Your task to perform on an android device: snooze an email in the gmail app Image 0: 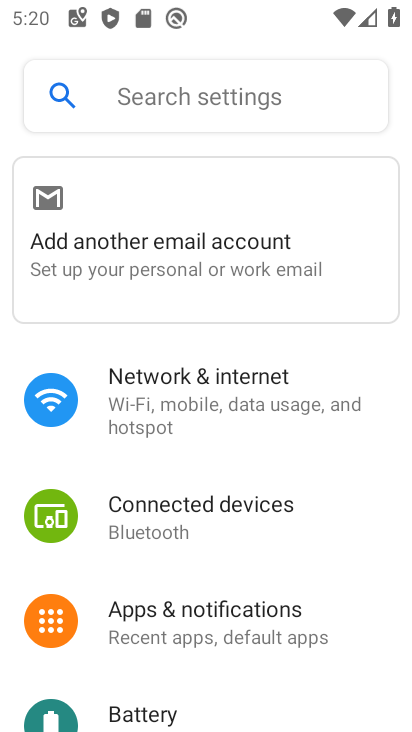
Step 0: press home button
Your task to perform on an android device: snooze an email in the gmail app Image 1: 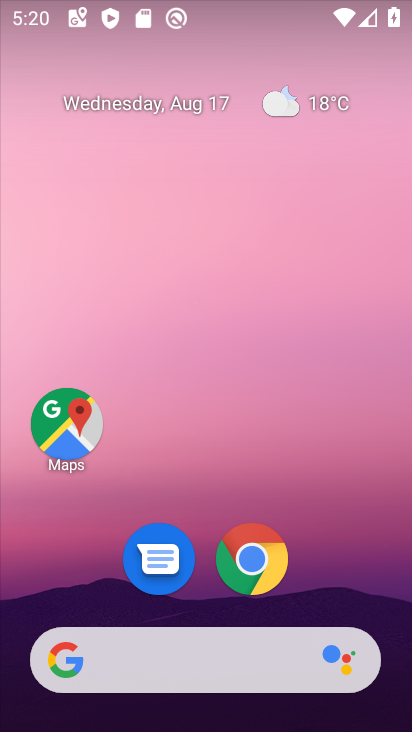
Step 1: drag from (172, 636) to (197, 260)
Your task to perform on an android device: snooze an email in the gmail app Image 2: 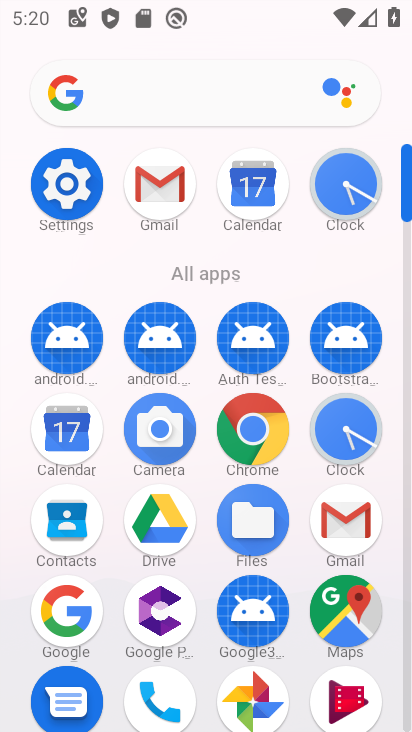
Step 2: click (176, 174)
Your task to perform on an android device: snooze an email in the gmail app Image 3: 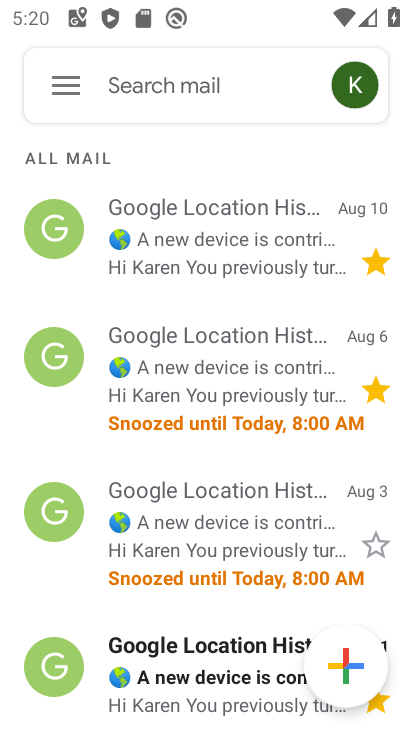
Step 3: click (61, 228)
Your task to perform on an android device: snooze an email in the gmail app Image 4: 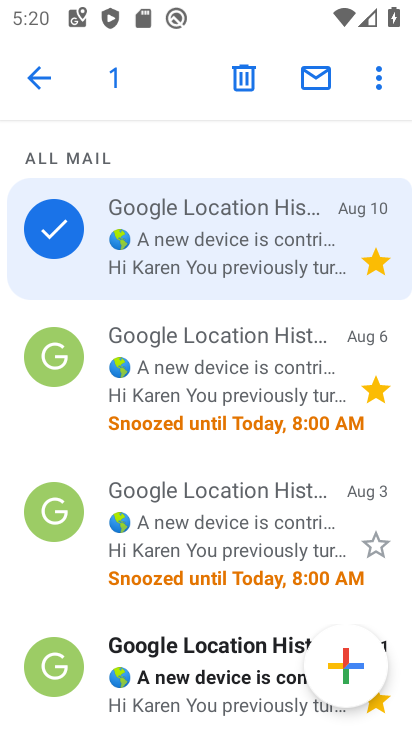
Step 4: click (374, 74)
Your task to perform on an android device: snooze an email in the gmail app Image 5: 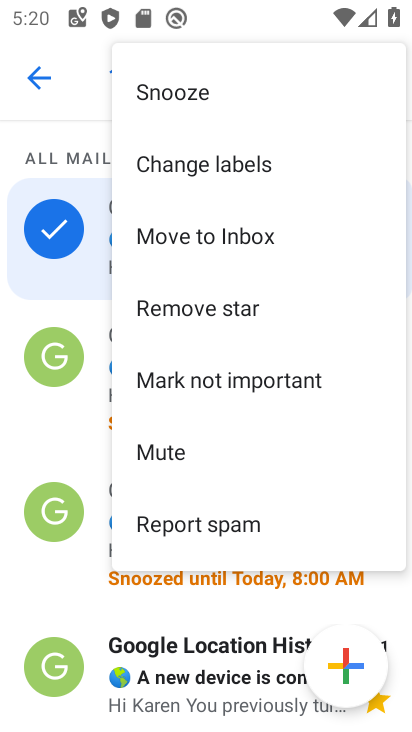
Step 5: click (179, 95)
Your task to perform on an android device: snooze an email in the gmail app Image 6: 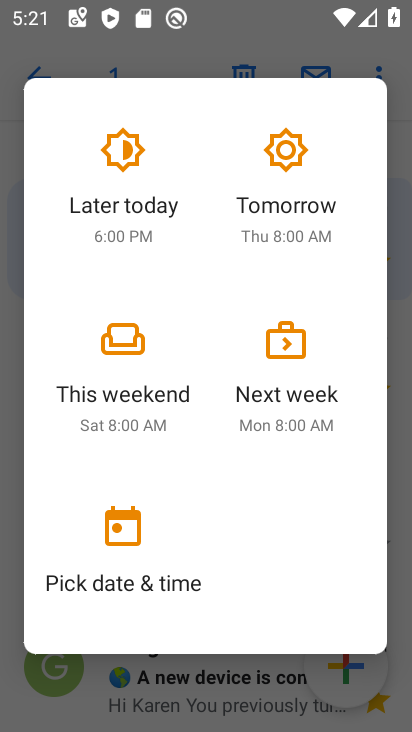
Step 6: click (115, 153)
Your task to perform on an android device: snooze an email in the gmail app Image 7: 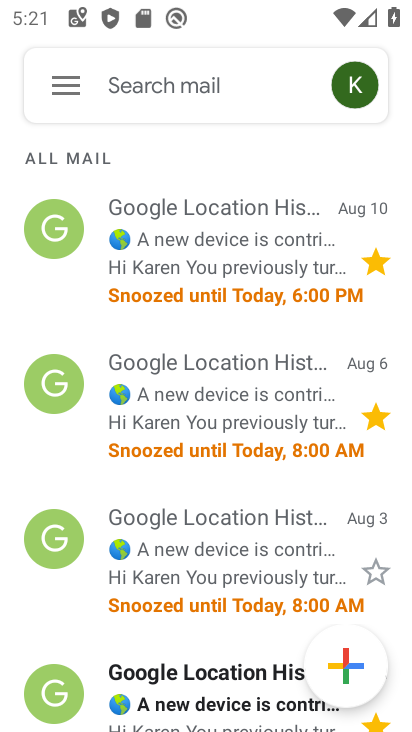
Step 7: task complete